Your task to perform on an android device: Go to notification settings Image 0: 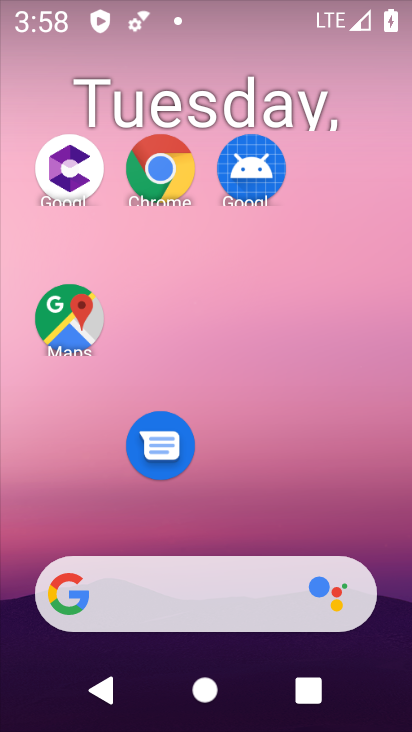
Step 0: drag from (231, 502) to (135, 35)
Your task to perform on an android device: Go to notification settings Image 1: 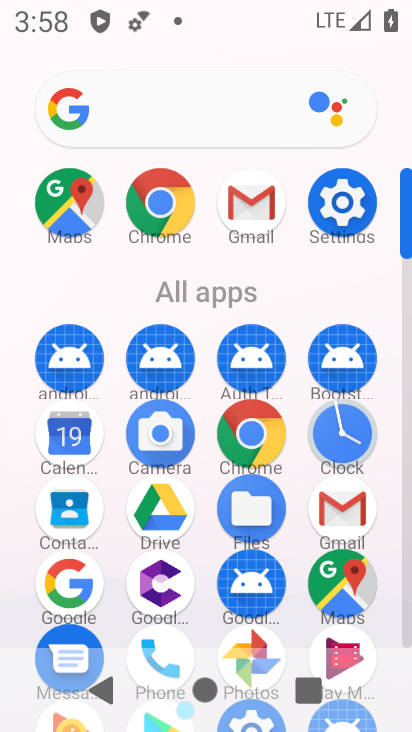
Step 1: click (348, 203)
Your task to perform on an android device: Go to notification settings Image 2: 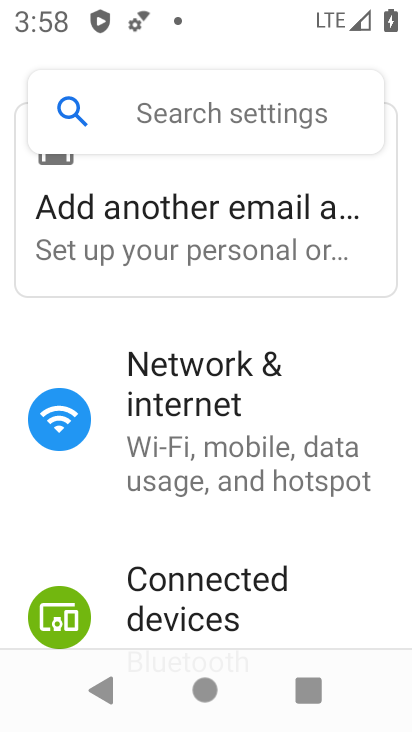
Step 2: drag from (212, 511) to (236, 243)
Your task to perform on an android device: Go to notification settings Image 3: 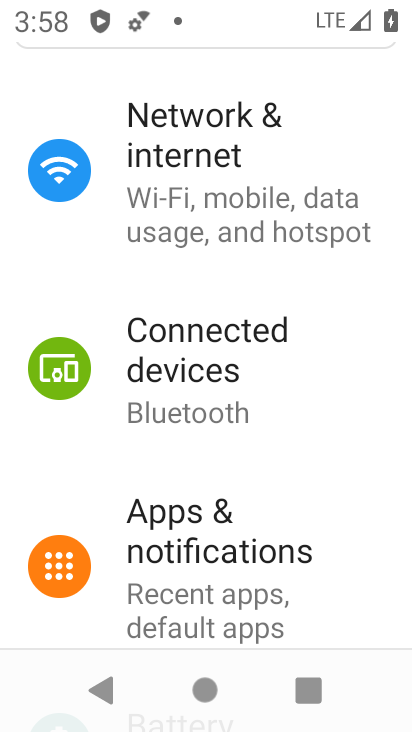
Step 3: click (192, 554)
Your task to perform on an android device: Go to notification settings Image 4: 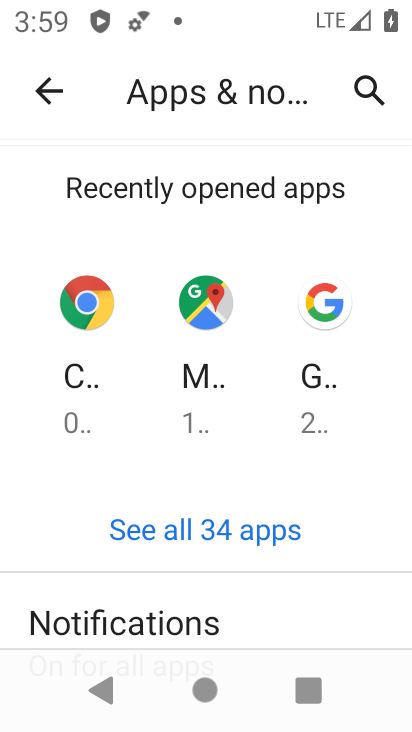
Step 4: task complete